Your task to perform on an android device: Clear the shopping cart on newegg.com. Add logitech g933 to the cart on newegg.com Image 0: 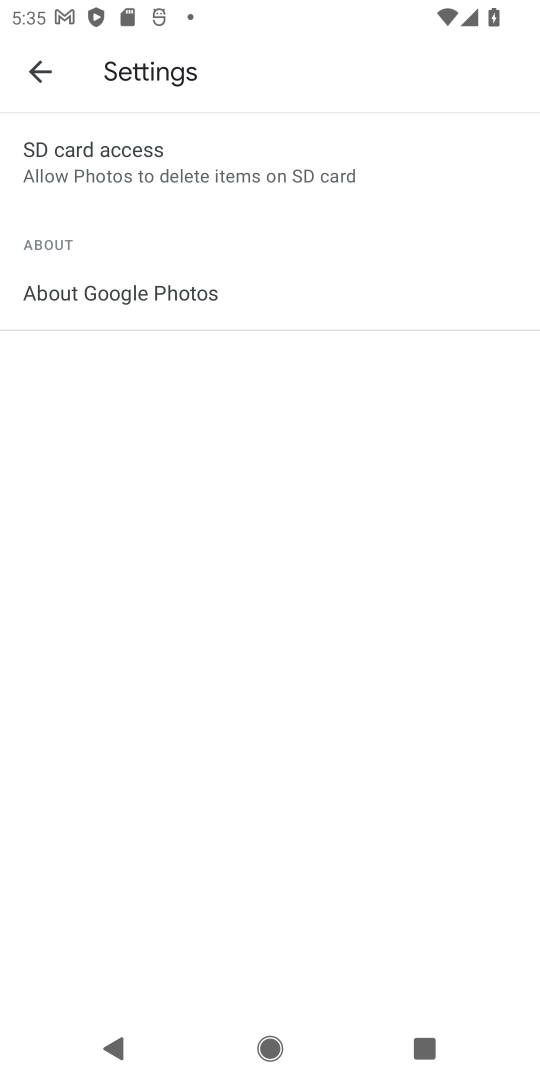
Step 0: press home button
Your task to perform on an android device: Clear the shopping cart on newegg.com. Add logitech g933 to the cart on newegg.com Image 1: 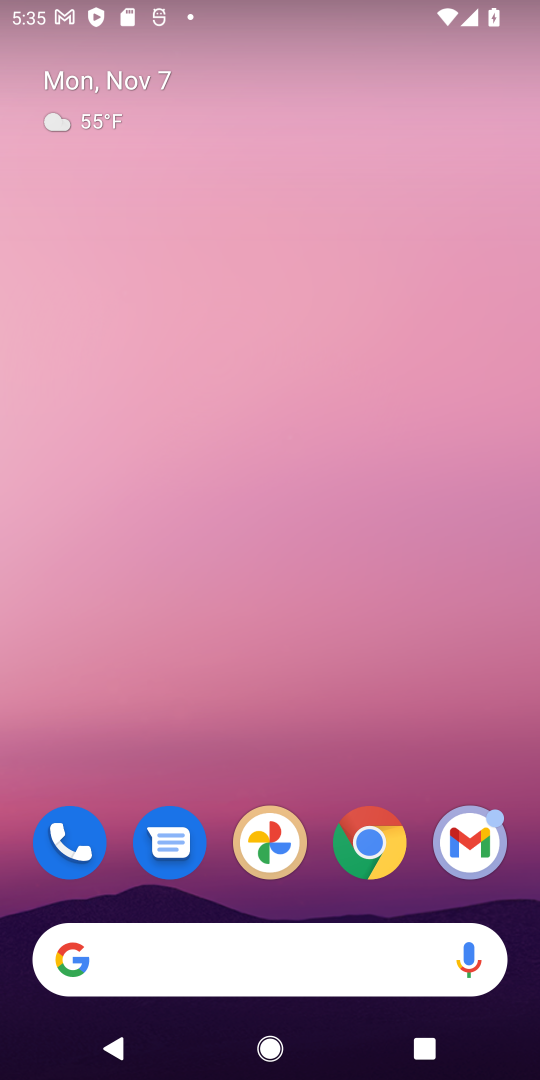
Step 1: click (363, 854)
Your task to perform on an android device: Clear the shopping cart on newegg.com. Add logitech g933 to the cart on newegg.com Image 2: 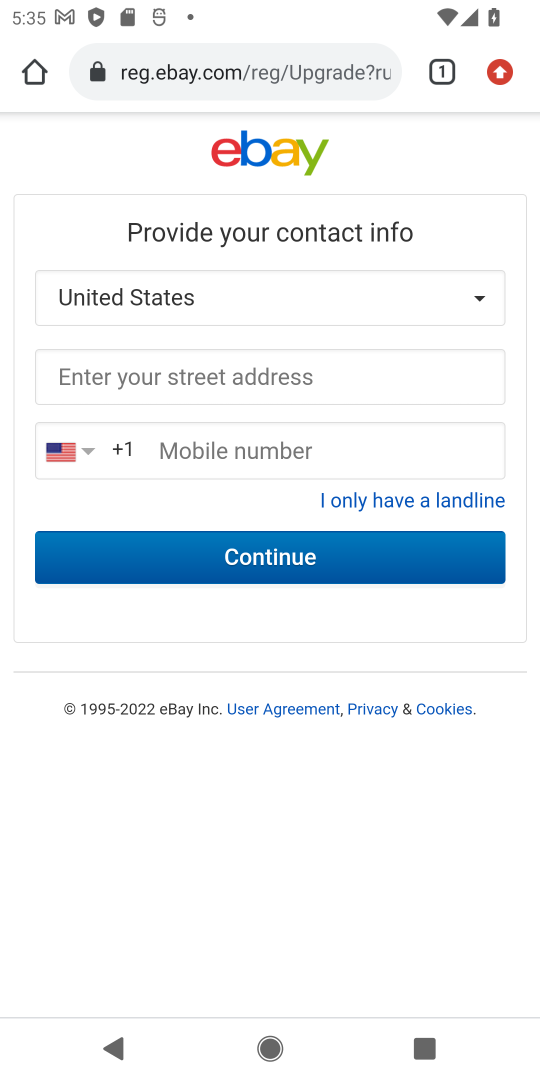
Step 2: click (220, 71)
Your task to perform on an android device: Clear the shopping cart on newegg.com. Add logitech g933 to the cart on newegg.com Image 3: 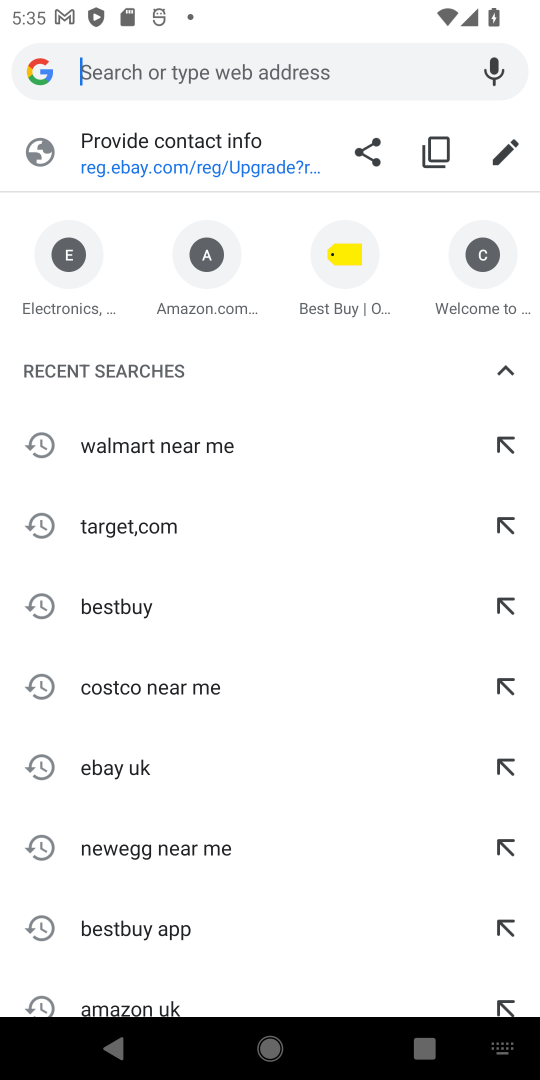
Step 3: type " newegg.com"
Your task to perform on an android device: Clear the shopping cart on newegg.com. Add logitech g933 to the cart on newegg.com Image 4: 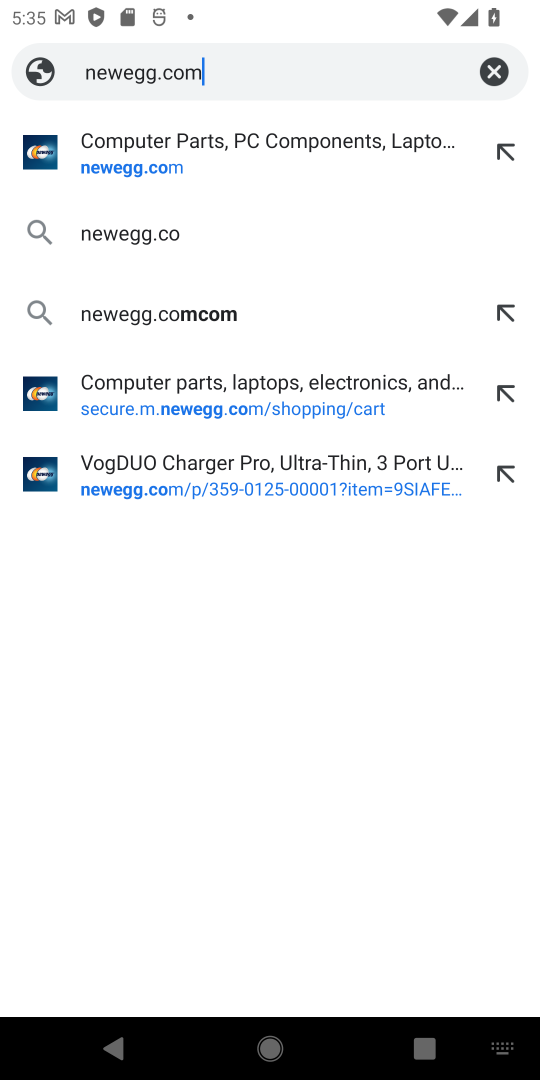
Step 4: press enter
Your task to perform on an android device: Clear the shopping cart on newegg.com. Add logitech g933 to the cart on newegg.com Image 5: 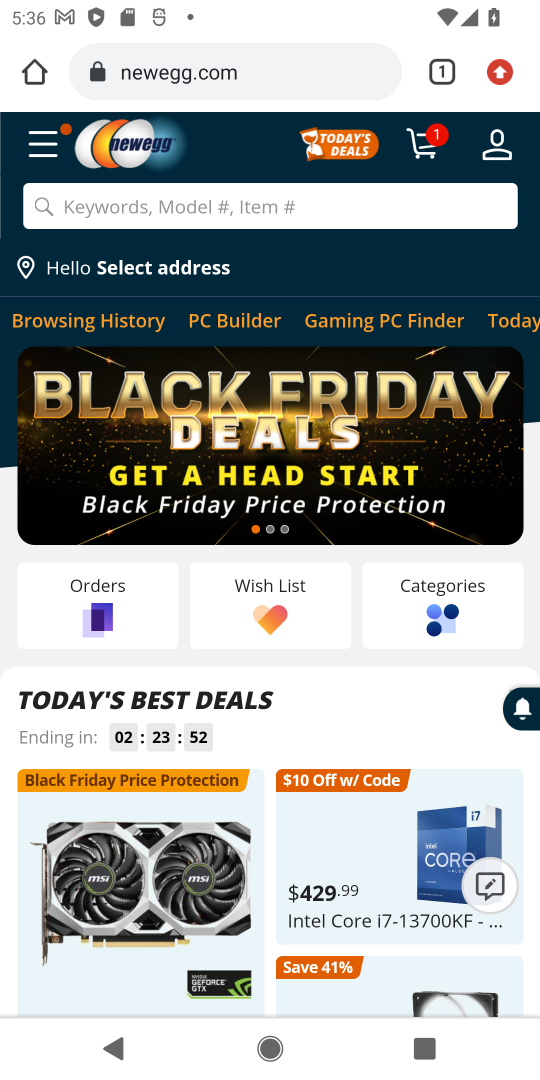
Step 5: click (297, 206)
Your task to perform on an android device: Clear the shopping cart on newegg.com. Add logitech g933 to the cart on newegg.com Image 6: 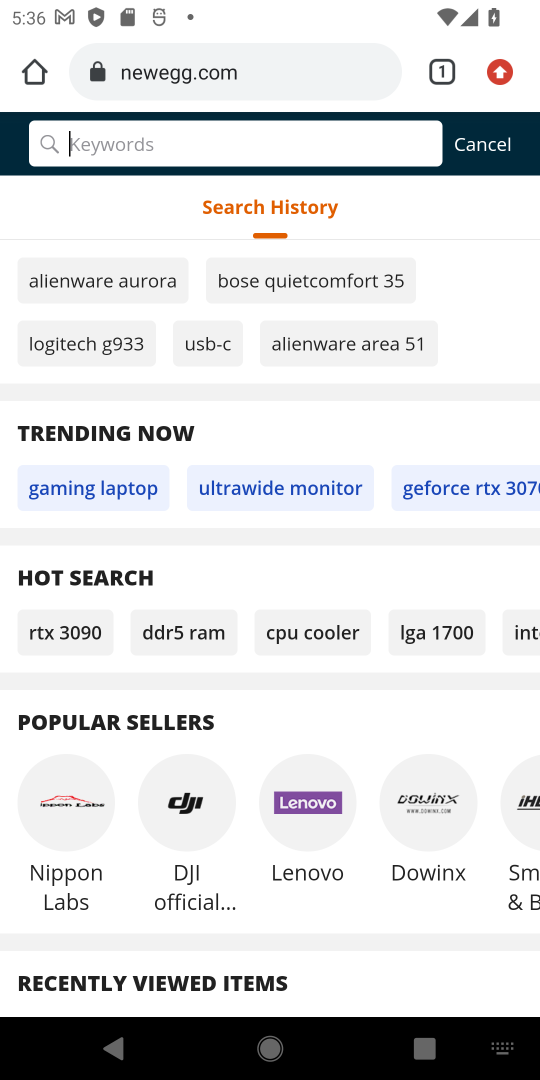
Step 6: type "logitech g933 "
Your task to perform on an android device: Clear the shopping cart on newegg.com. Add logitech g933 to the cart on newegg.com Image 7: 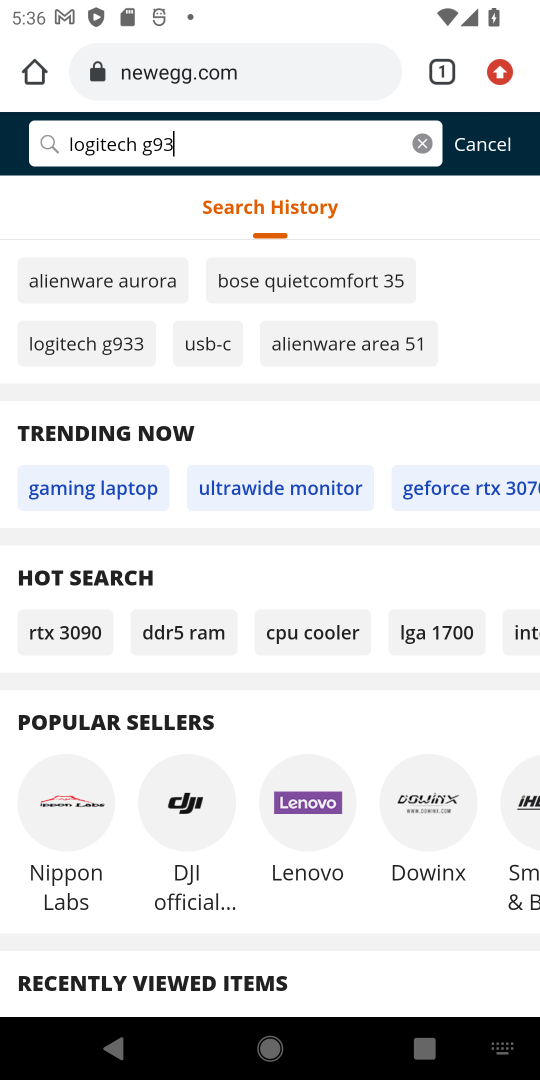
Step 7: press enter
Your task to perform on an android device: Clear the shopping cart on newegg.com. Add logitech g933 to the cart on newegg.com Image 8: 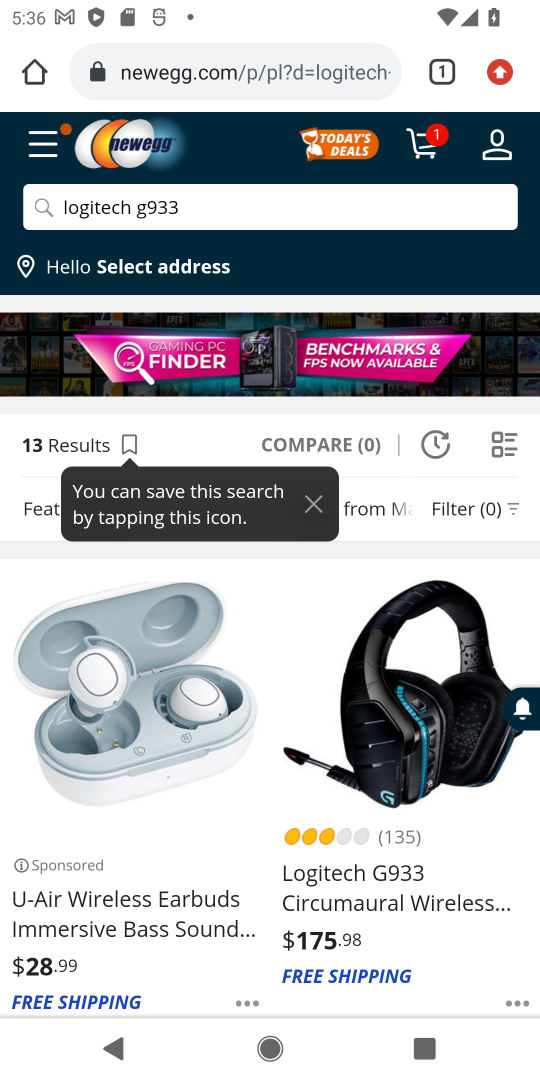
Step 8: drag from (241, 773) to (342, 511)
Your task to perform on an android device: Clear the shopping cart on newegg.com. Add logitech g933 to the cart on newegg.com Image 9: 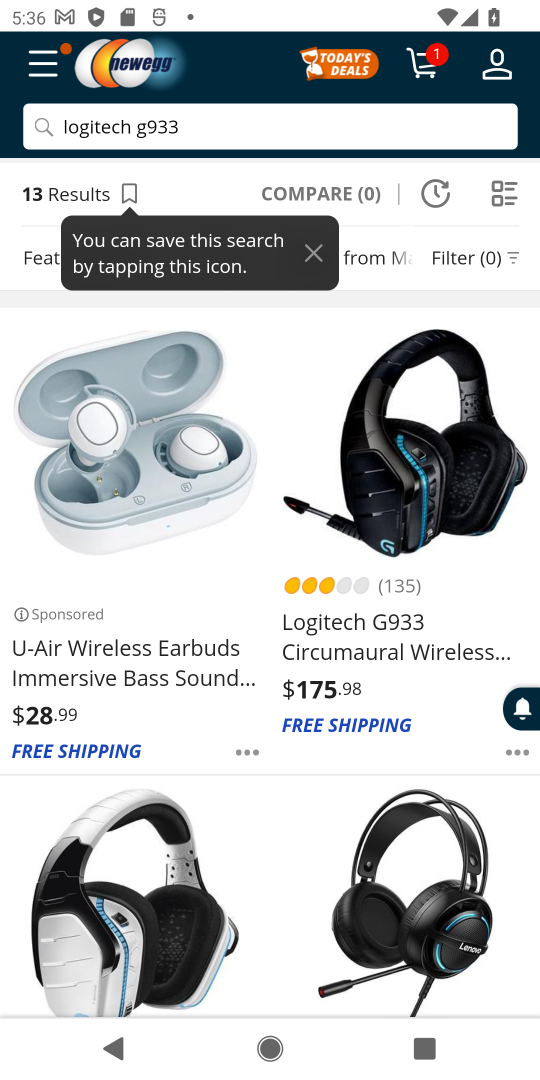
Step 9: click (398, 694)
Your task to perform on an android device: Clear the shopping cart on newegg.com. Add logitech g933 to the cart on newegg.com Image 10: 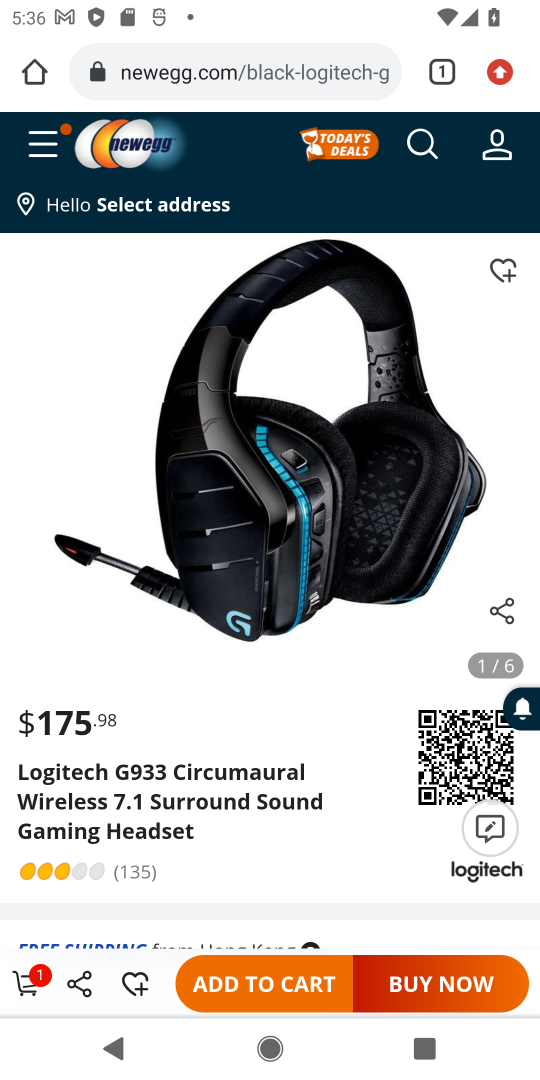
Step 10: click (268, 982)
Your task to perform on an android device: Clear the shopping cart on newegg.com. Add logitech g933 to the cart on newegg.com Image 11: 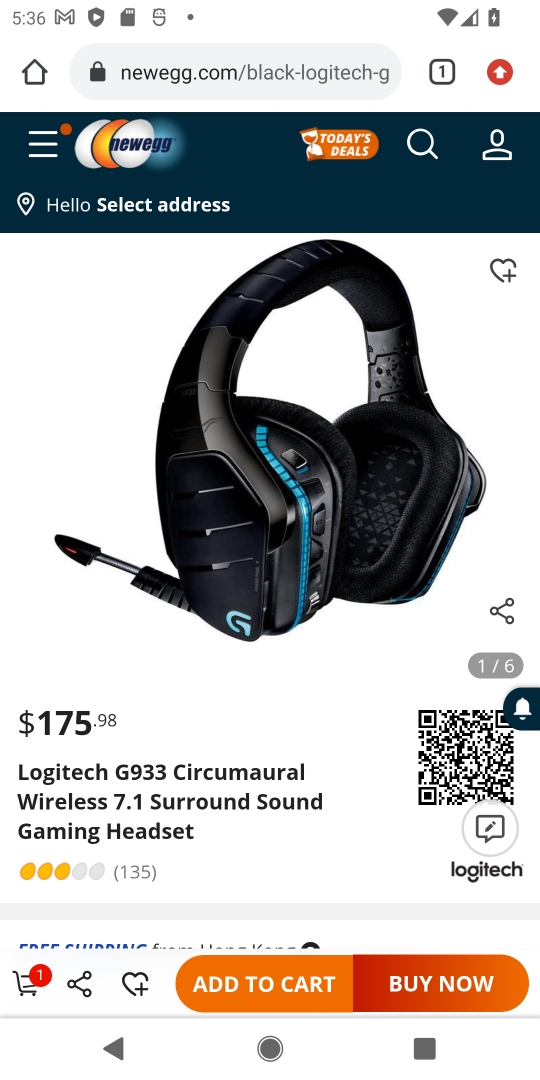
Step 11: click (232, 980)
Your task to perform on an android device: Clear the shopping cart on newegg.com. Add logitech g933 to the cart on newegg.com Image 12: 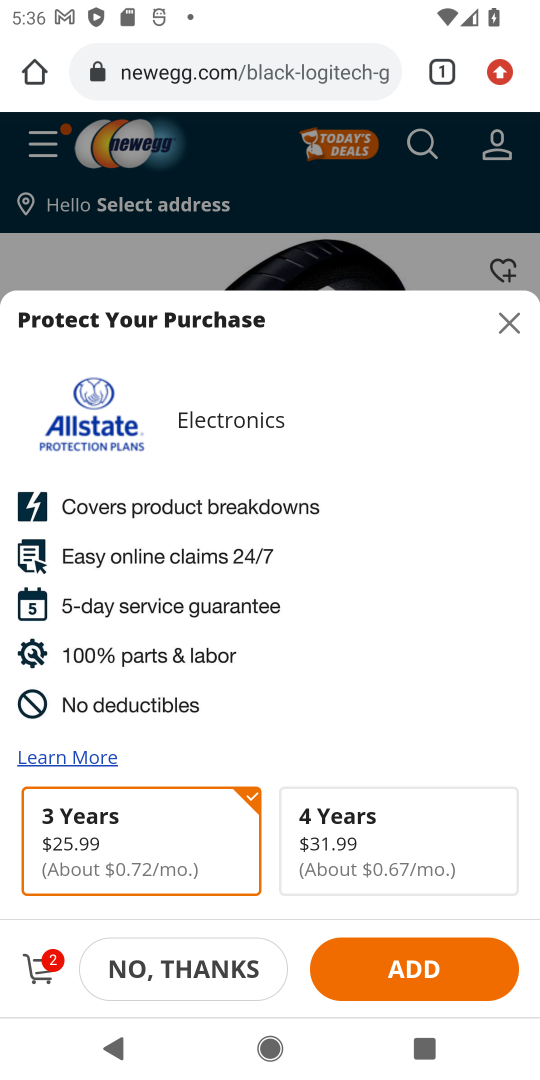
Step 12: click (41, 972)
Your task to perform on an android device: Clear the shopping cart on newegg.com. Add logitech g933 to the cart on newegg.com Image 13: 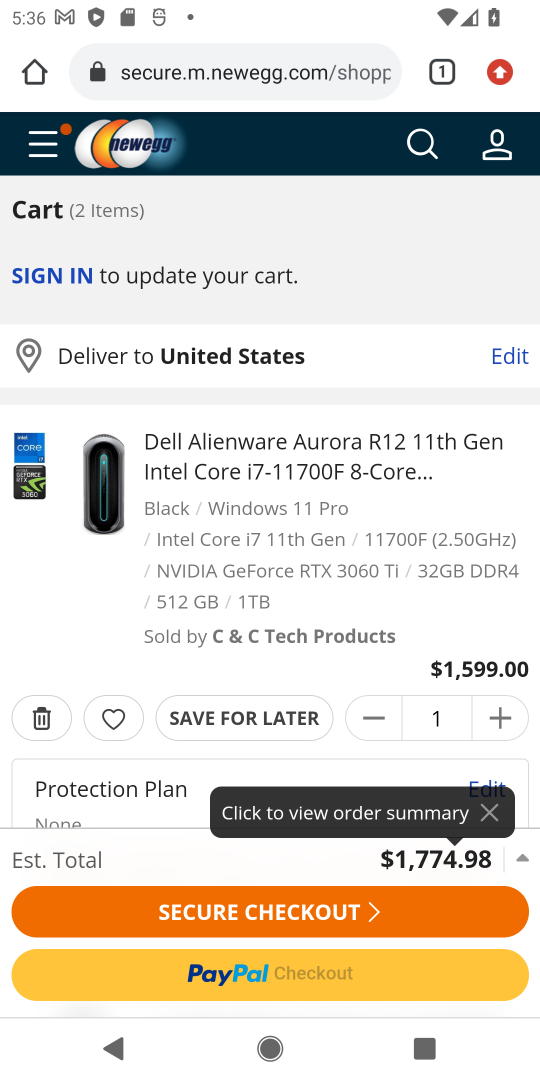
Step 13: drag from (185, 739) to (347, 613)
Your task to perform on an android device: Clear the shopping cart on newegg.com. Add logitech g933 to the cart on newegg.com Image 14: 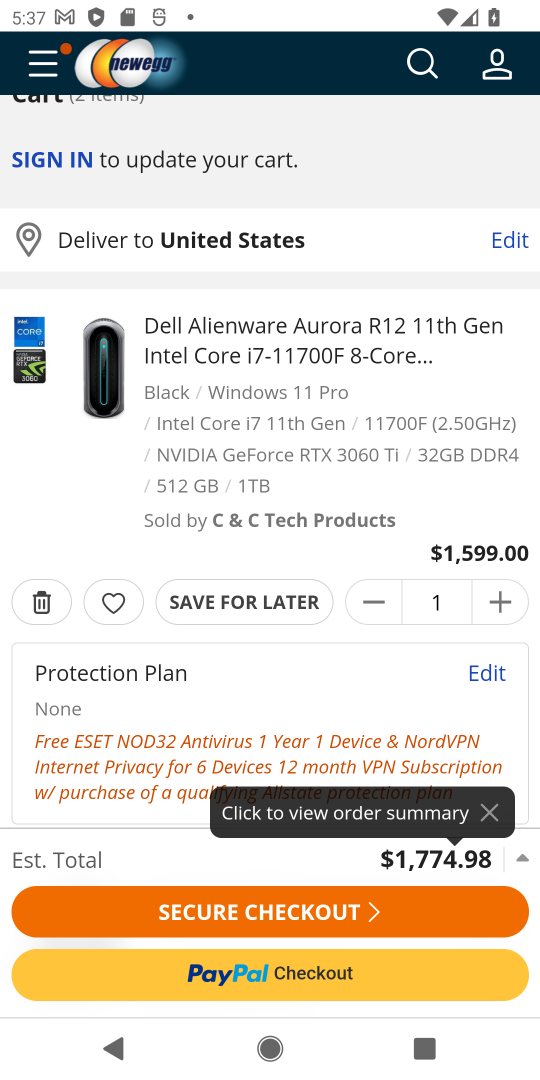
Step 14: click (37, 604)
Your task to perform on an android device: Clear the shopping cart on newegg.com. Add logitech g933 to the cart on newegg.com Image 15: 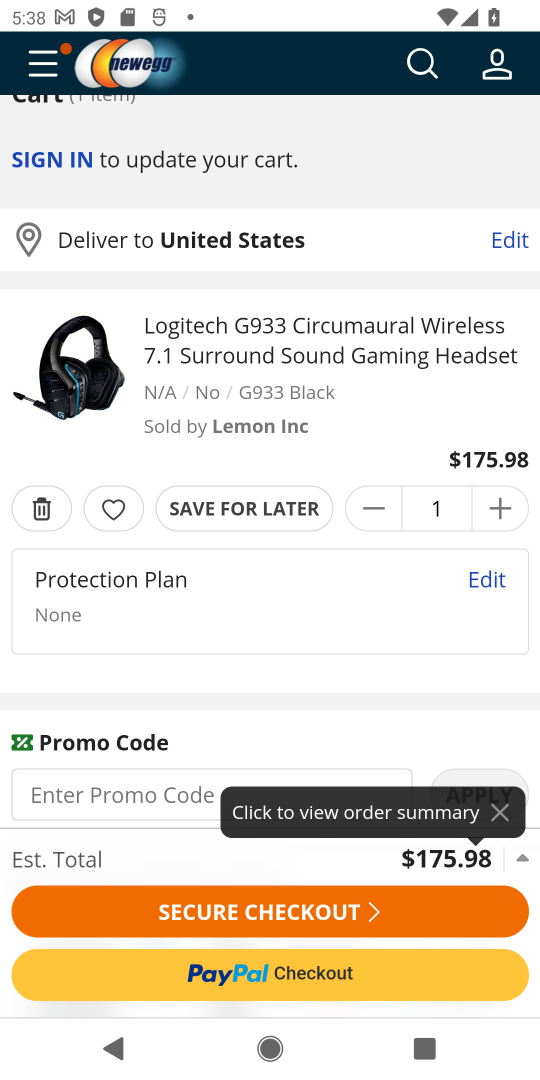
Step 15: task complete